Your task to perform on an android device: Show me popular games on the Play Store Image 0: 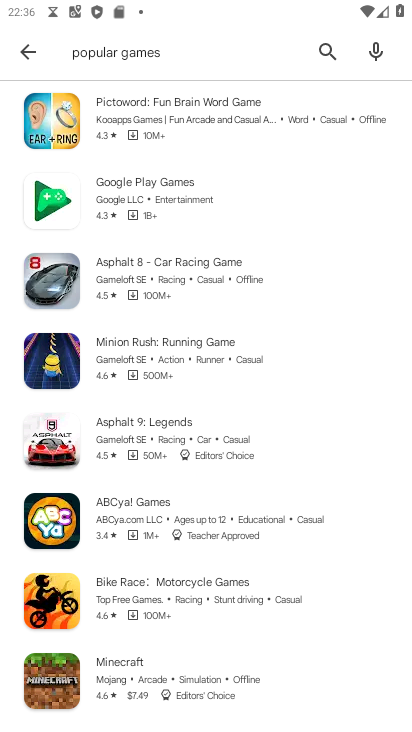
Step 0: drag from (237, 252) to (259, 489)
Your task to perform on an android device: Show me popular games on the Play Store Image 1: 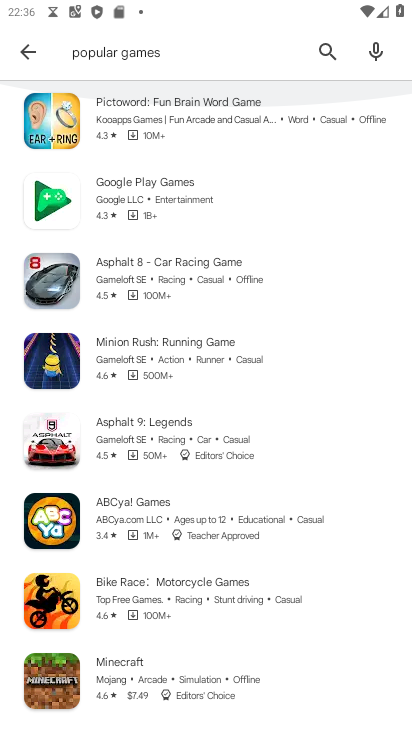
Step 1: task complete